Your task to perform on an android device: Go to Yahoo.com Image 0: 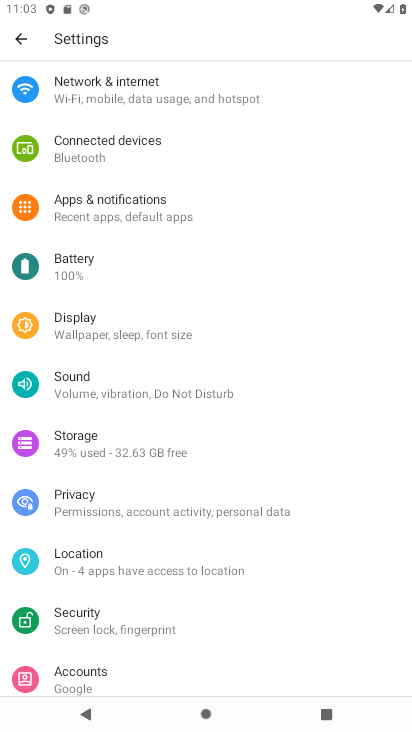
Step 0: press home button
Your task to perform on an android device: Go to Yahoo.com Image 1: 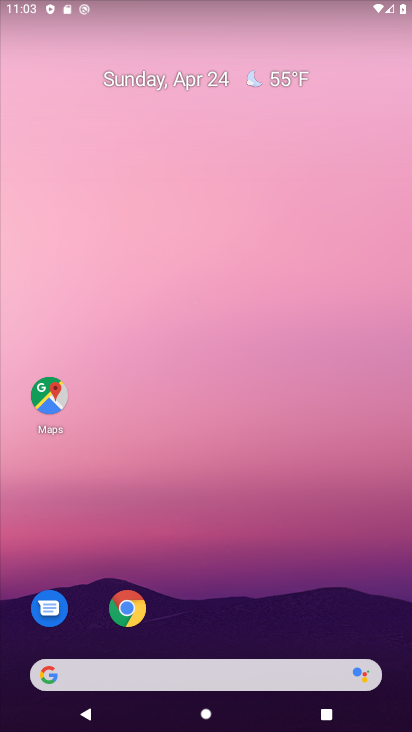
Step 1: click (133, 601)
Your task to perform on an android device: Go to Yahoo.com Image 2: 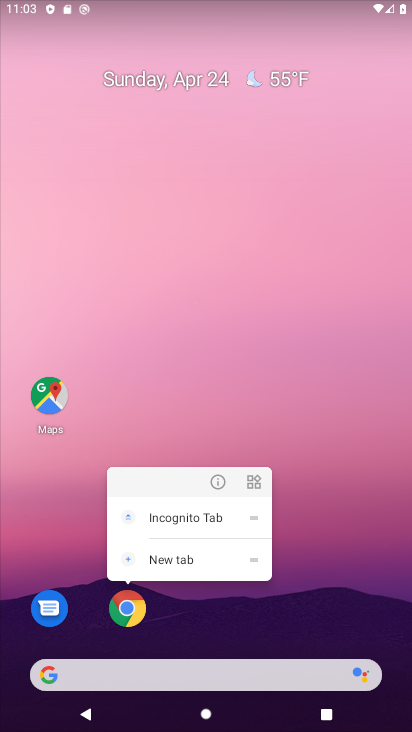
Step 2: click (119, 614)
Your task to perform on an android device: Go to Yahoo.com Image 3: 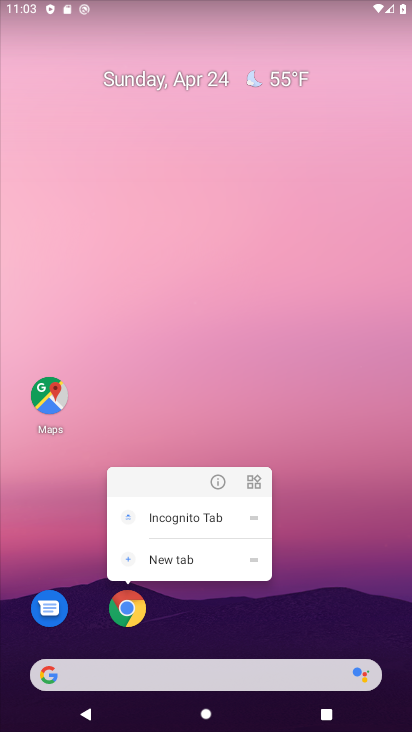
Step 3: click (136, 601)
Your task to perform on an android device: Go to Yahoo.com Image 4: 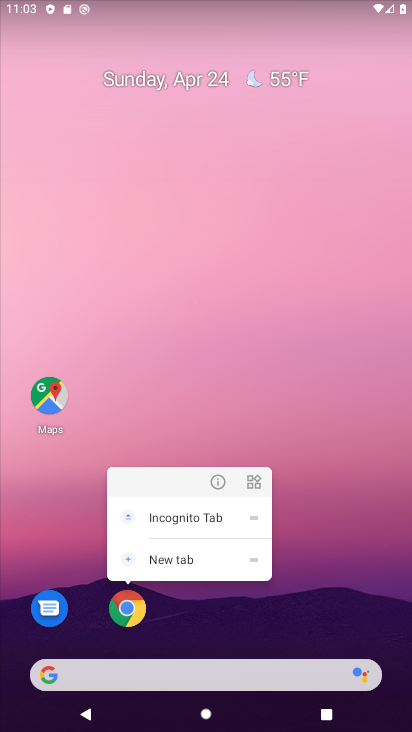
Step 4: click (128, 606)
Your task to perform on an android device: Go to Yahoo.com Image 5: 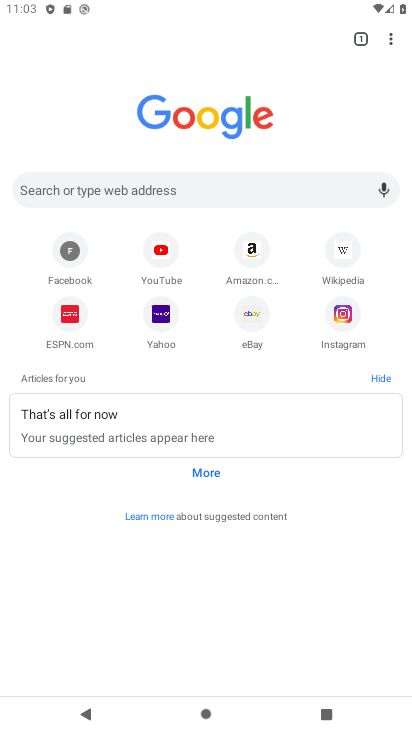
Step 5: click (169, 309)
Your task to perform on an android device: Go to Yahoo.com Image 6: 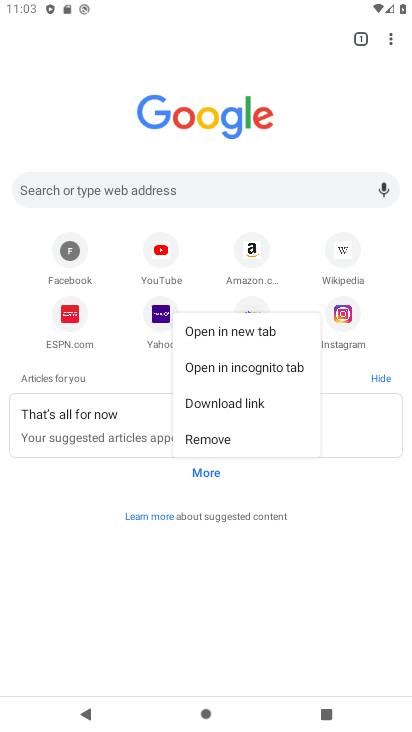
Step 6: click (162, 312)
Your task to perform on an android device: Go to Yahoo.com Image 7: 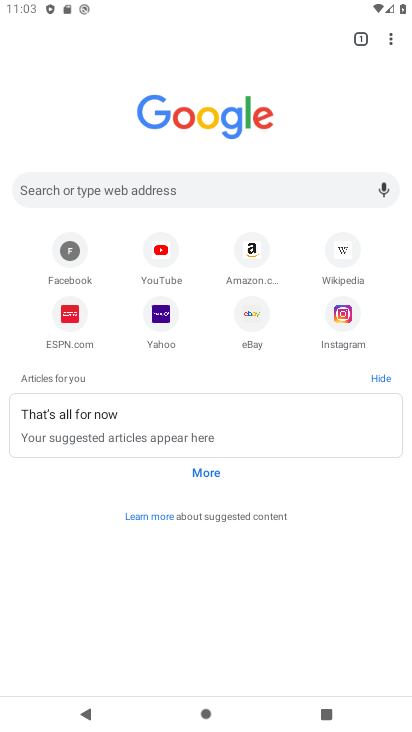
Step 7: click (162, 312)
Your task to perform on an android device: Go to Yahoo.com Image 8: 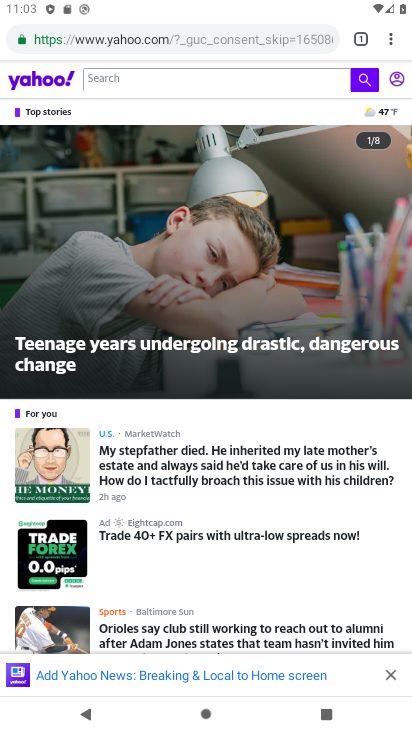
Step 8: task complete